Your task to perform on an android device: uninstall "Microsoft Outlook" Image 0: 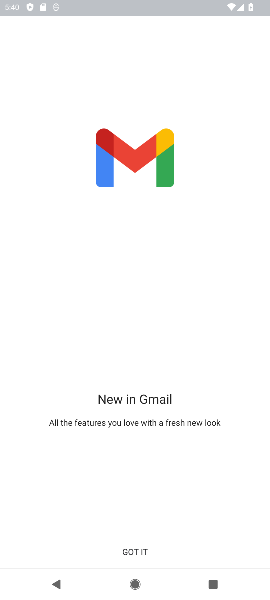
Step 0: press home button
Your task to perform on an android device: uninstall "Microsoft Outlook" Image 1: 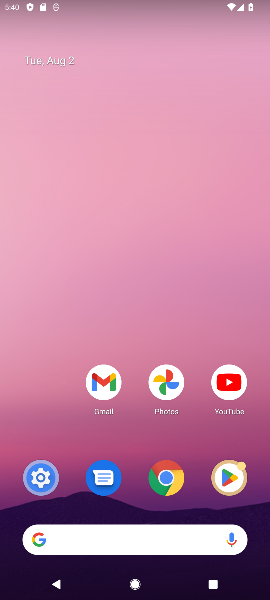
Step 1: drag from (133, 456) to (215, 50)
Your task to perform on an android device: uninstall "Microsoft Outlook" Image 2: 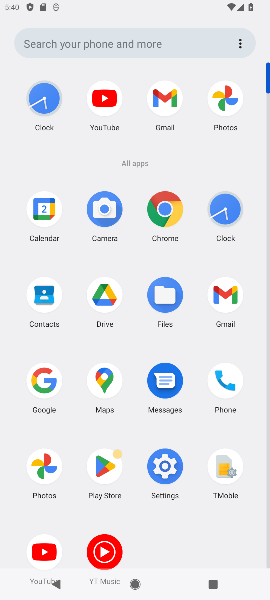
Step 2: click (97, 458)
Your task to perform on an android device: uninstall "Microsoft Outlook" Image 3: 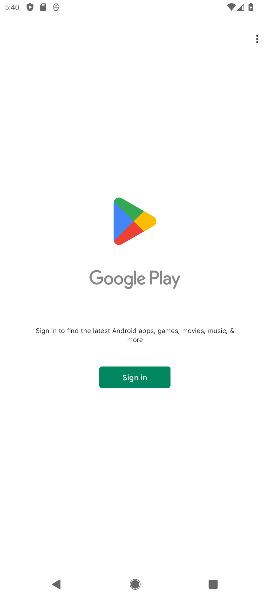
Step 3: task complete